Your task to perform on an android device: open the mobile data screen to see how much data has been used Image 0: 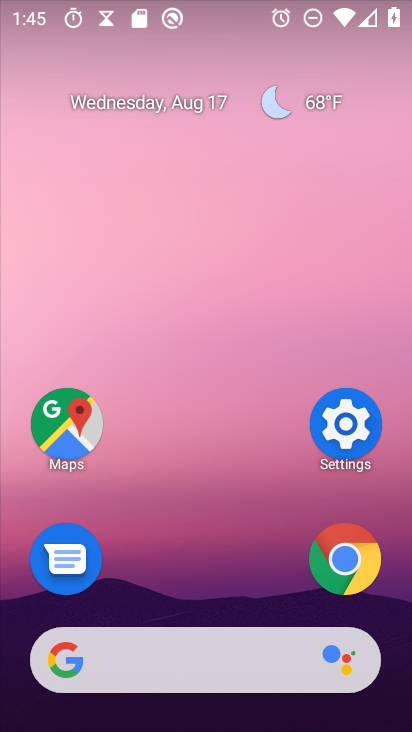
Step 0: click (350, 416)
Your task to perform on an android device: open the mobile data screen to see how much data has been used Image 1: 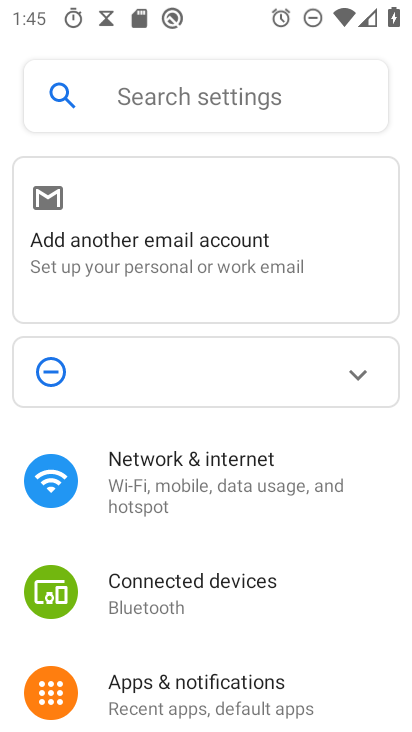
Step 1: drag from (280, 622) to (330, 213)
Your task to perform on an android device: open the mobile data screen to see how much data has been used Image 2: 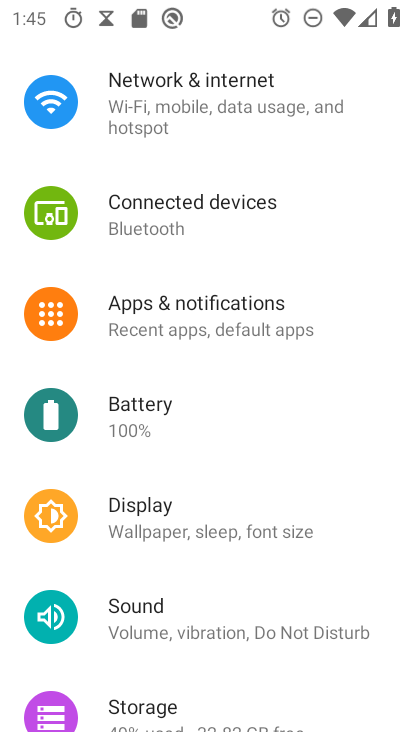
Step 2: click (234, 95)
Your task to perform on an android device: open the mobile data screen to see how much data has been used Image 3: 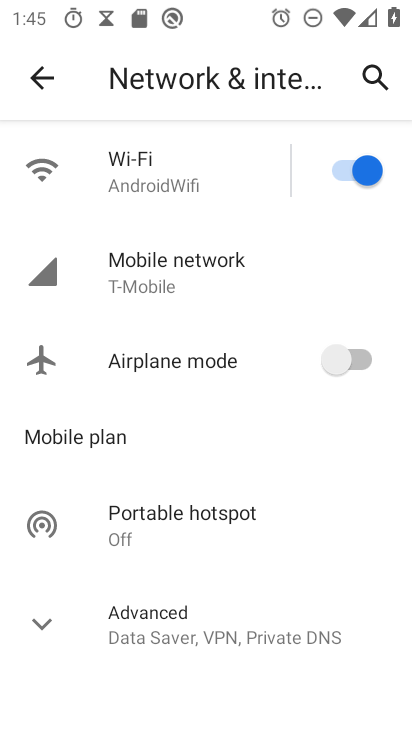
Step 3: click (165, 273)
Your task to perform on an android device: open the mobile data screen to see how much data has been used Image 4: 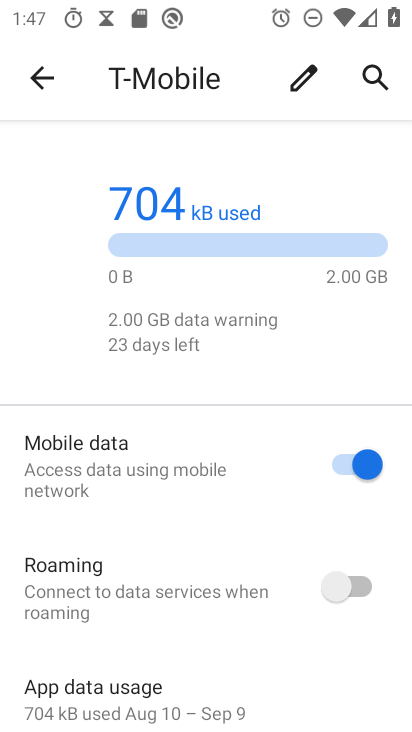
Step 4: task complete